Your task to perform on an android device: open app "Adobe Acrobat Reader" (install if not already installed) Image 0: 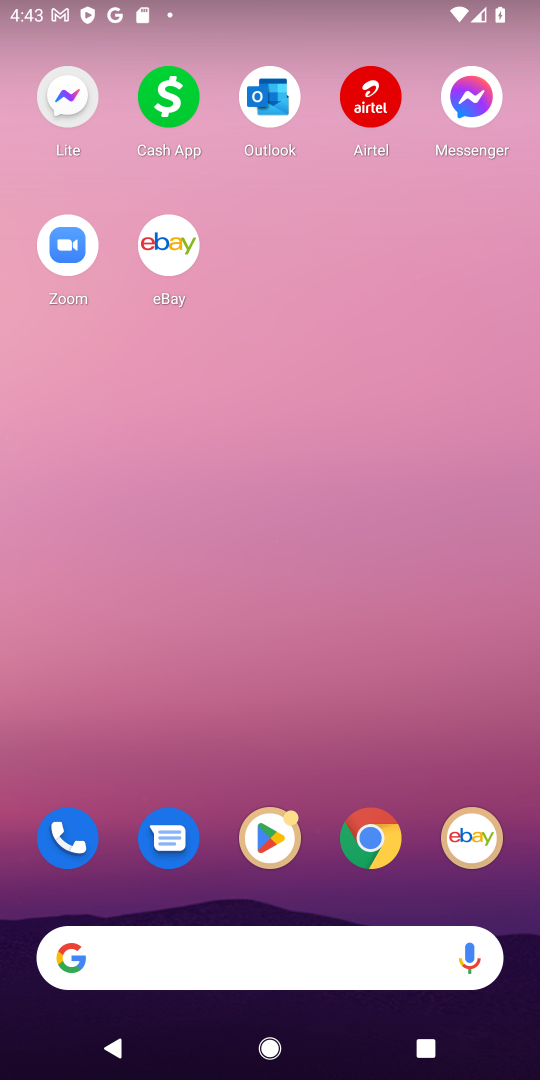
Step 0: drag from (187, 939) to (353, 32)
Your task to perform on an android device: open app "Adobe Acrobat Reader" (install if not already installed) Image 1: 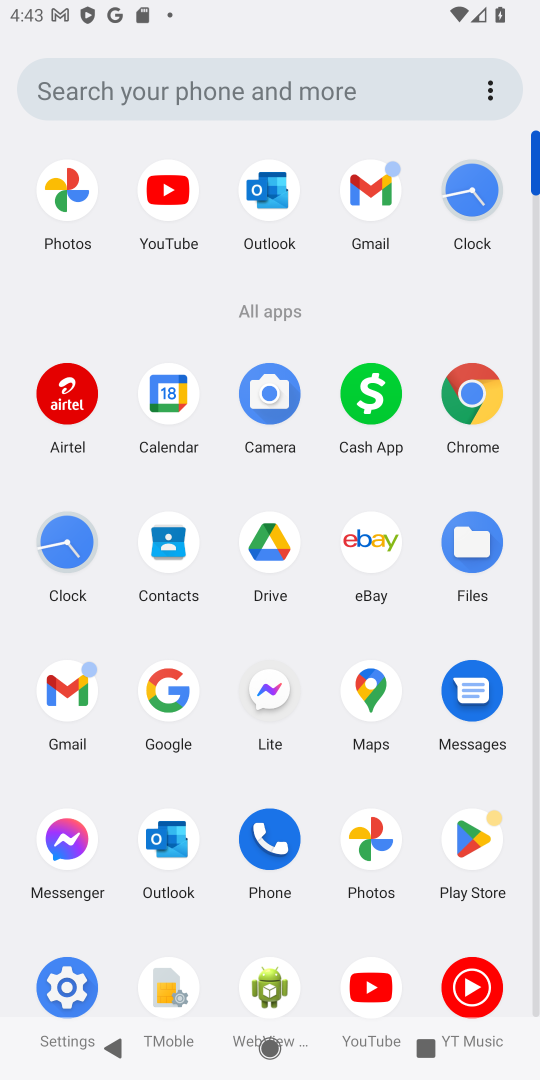
Step 1: click (474, 842)
Your task to perform on an android device: open app "Adobe Acrobat Reader" (install if not already installed) Image 2: 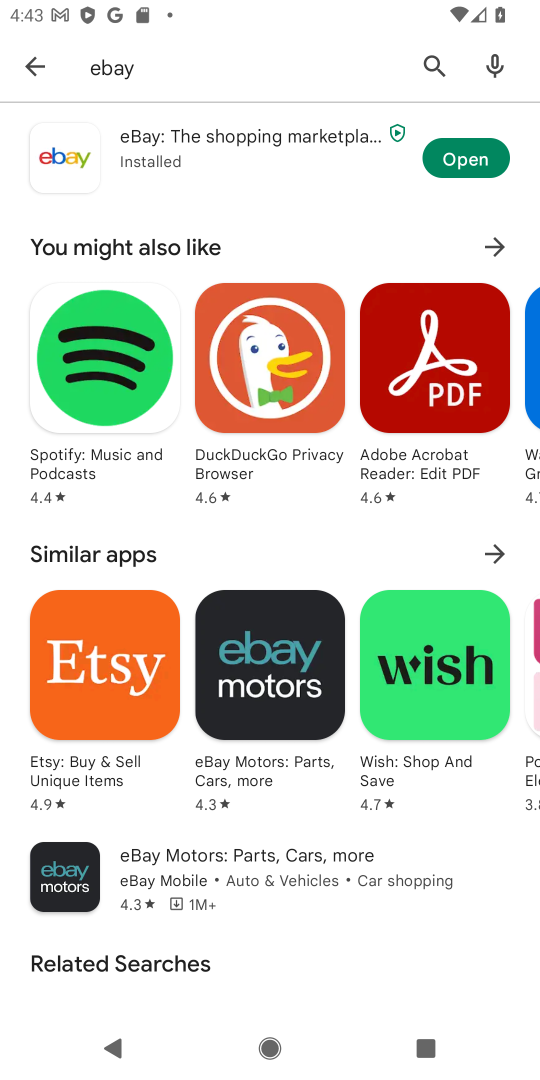
Step 2: press back button
Your task to perform on an android device: open app "Adobe Acrobat Reader" (install if not already installed) Image 3: 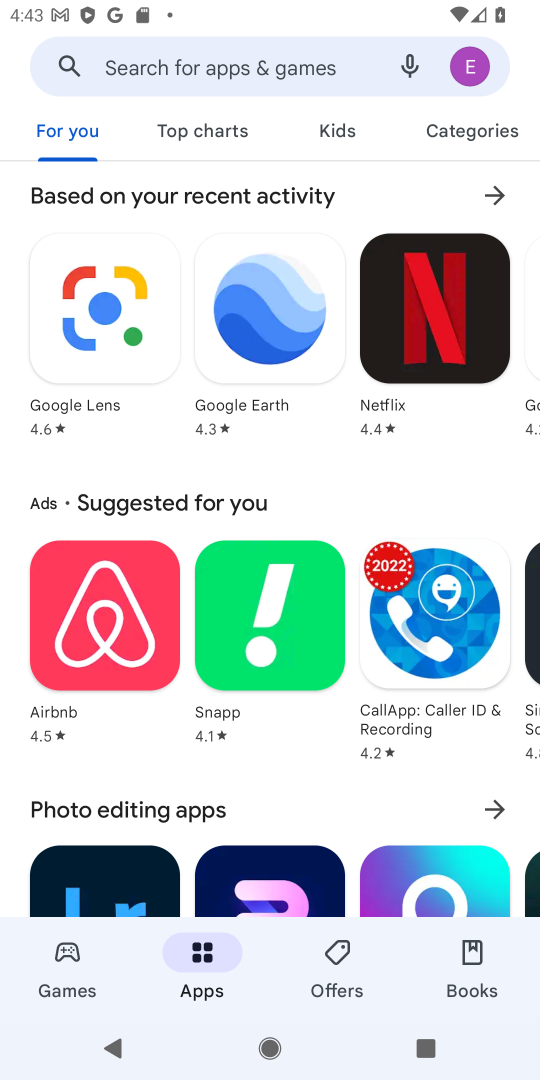
Step 3: click (278, 67)
Your task to perform on an android device: open app "Adobe Acrobat Reader" (install if not already installed) Image 4: 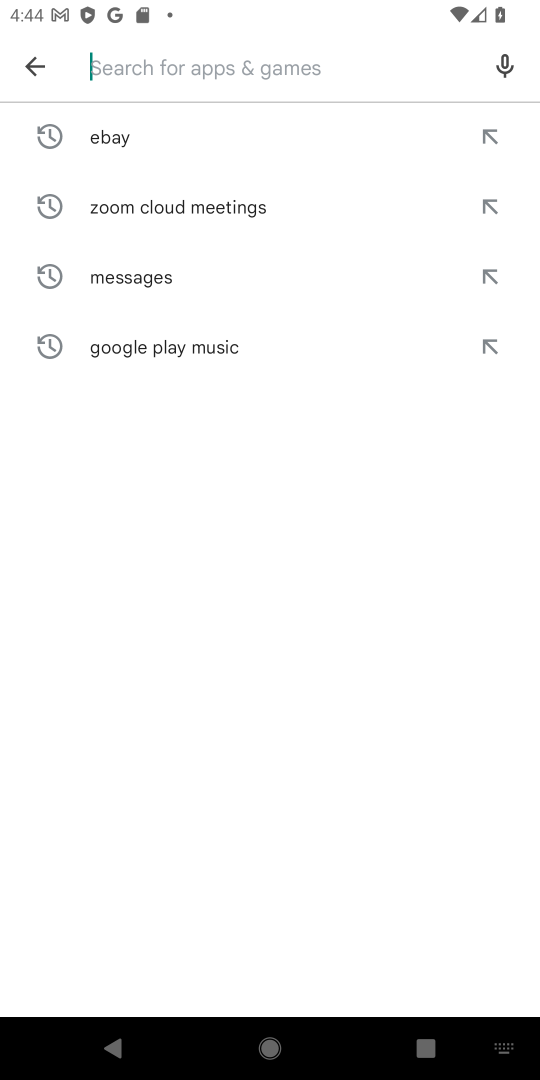
Step 4: click (111, 63)
Your task to perform on an android device: open app "Adobe Acrobat Reader" (install if not already installed) Image 5: 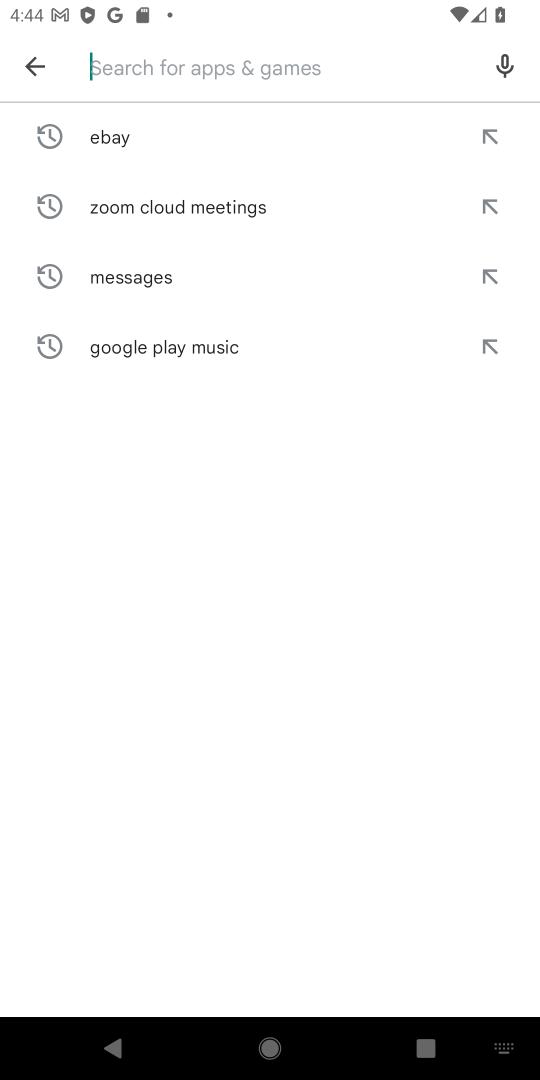
Step 5: type "Adobe Acrobat Reader"
Your task to perform on an android device: open app "Adobe Acrobat Reader" (install if not already installed) Image 6: 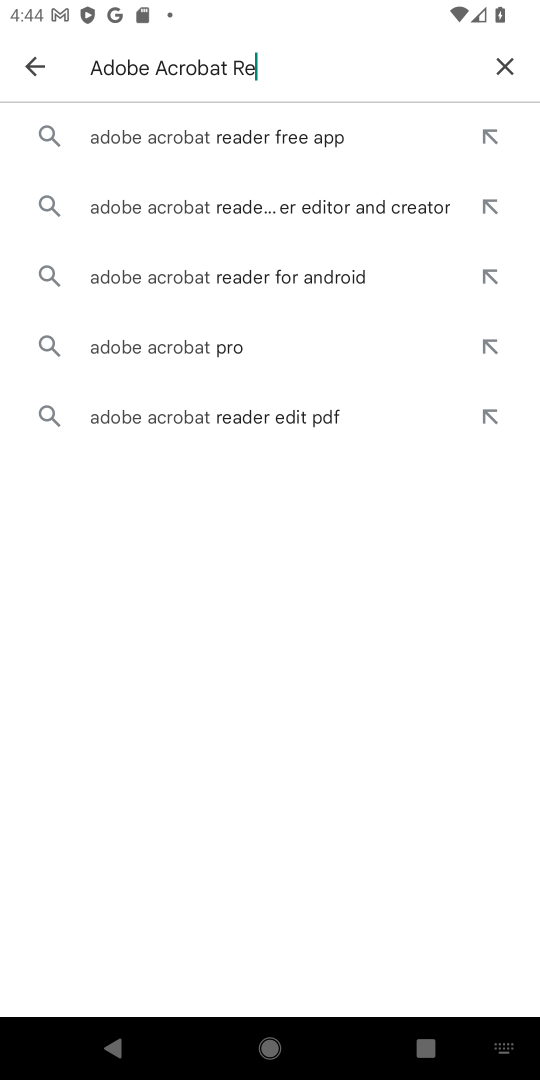
Step 6: type ""
Your task to perform on an android device: open app "Adobe Acrobat Reader" (install if not already installed) Image 7: 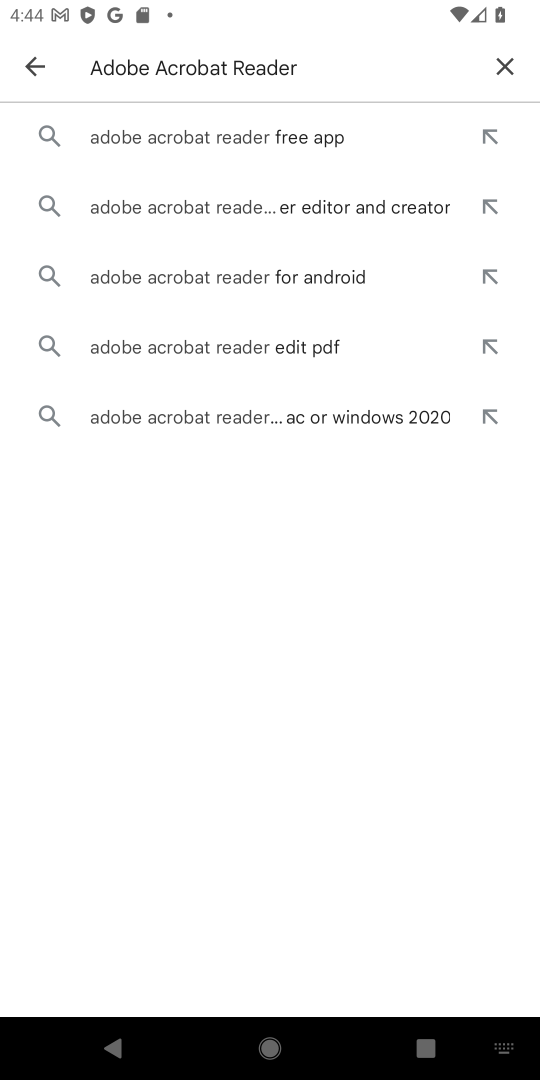
Step 7: click (194, 154)
Your task to perform on an android device: open app "Adobe Acrobat Reader" (install if not already installed) Image 8: 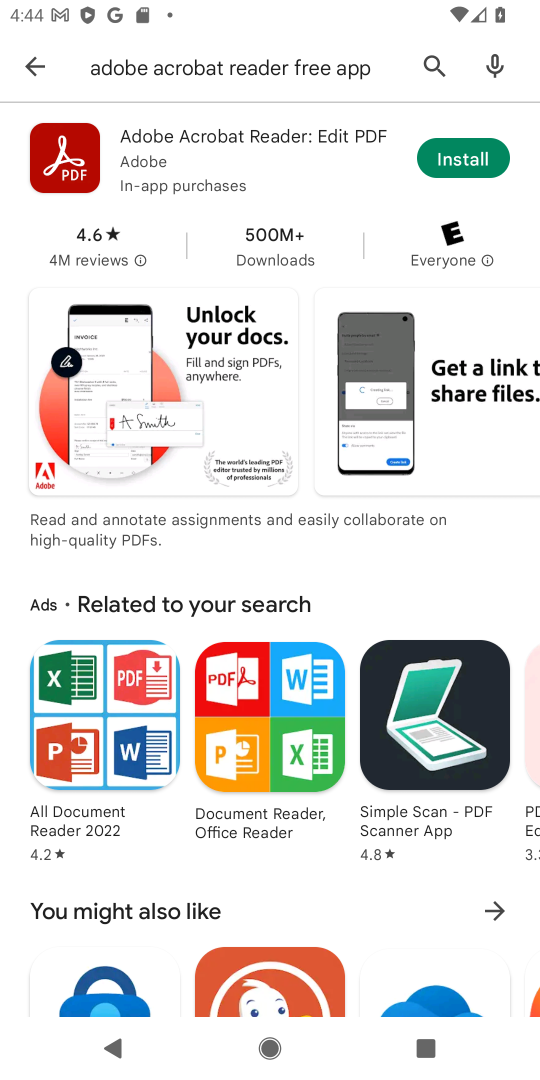
Step 8: click (456, 167)
Your task to perform on an android device: open app "Adobe Acrobat Reader" (install if not already installed) Image 9: 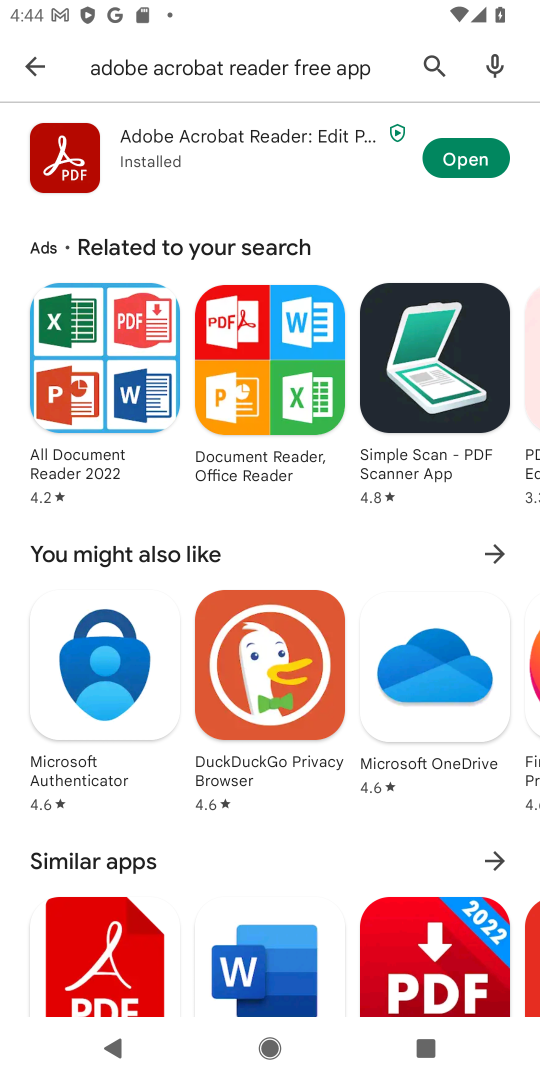
Step 9: click (456, 167)
Your task to perform on an android device: open app "Adobe Acrobat Reader" (install if not already installed) Image 10: 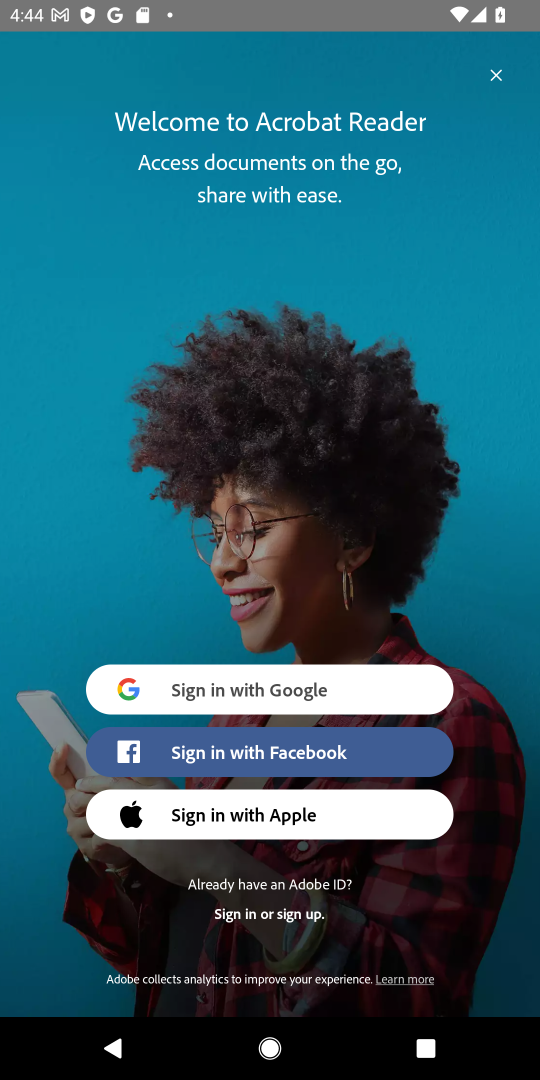
Step 10: task complete